Your task to perform on an android device: check data usage Image 0: 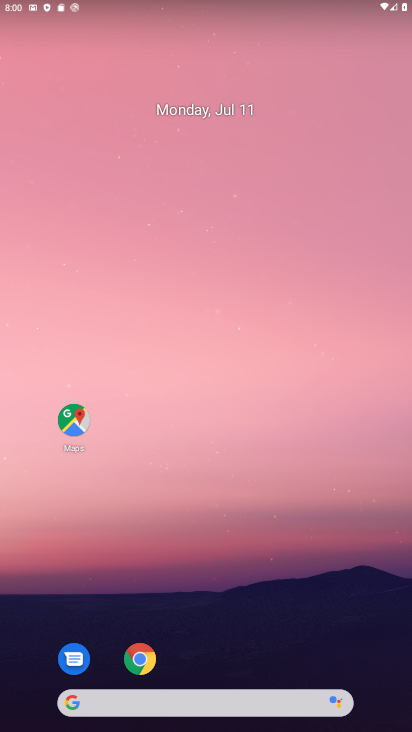
Step 0: drag from (211, 649) to (156, 207)
Your task to perform on an android device: check data usage Image 1: 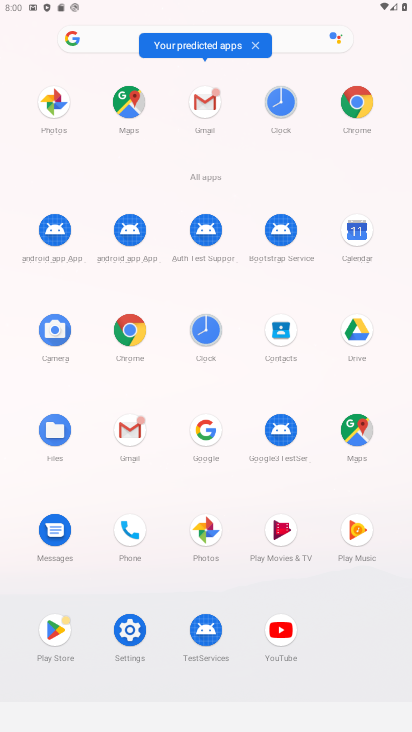
Step 1: click (142, 620)
Your task to perform on an android device: check data usage Image 2: 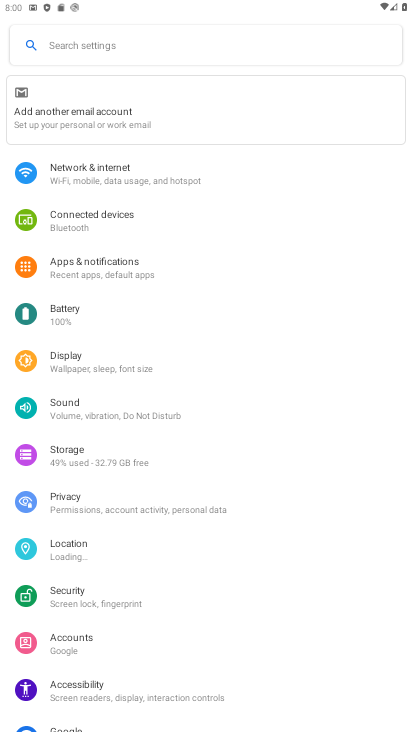
Step 2: click (116, 176)
Your task to perform on an android device: check data usage Image 3: 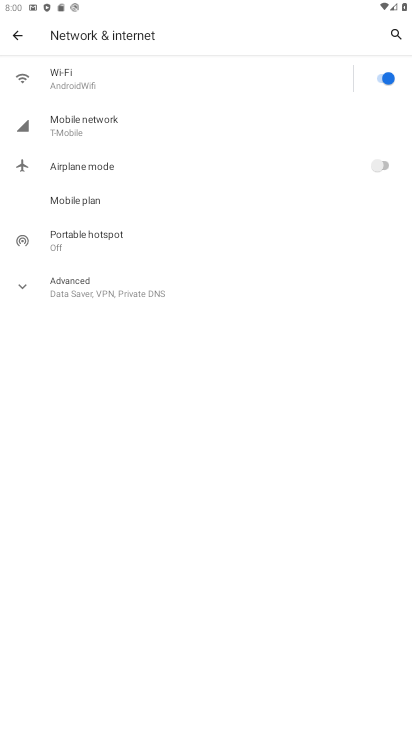
Step 3: click (116, 132)
Your task to perform on an android device: check data usage Image 4: 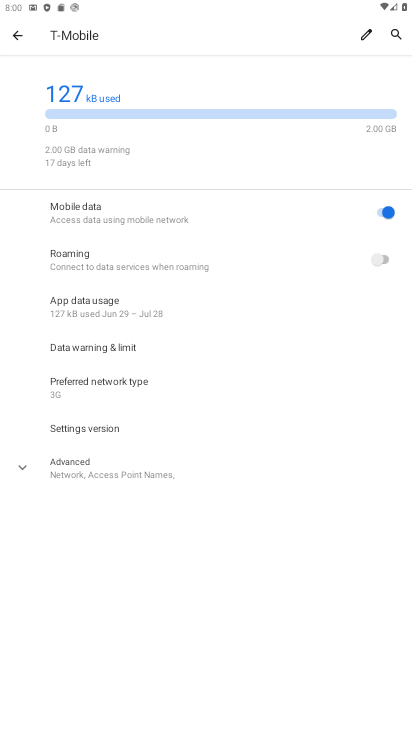
Step 4: click (140, 313)
Your task to perform on an android device: check data usage Image 5: 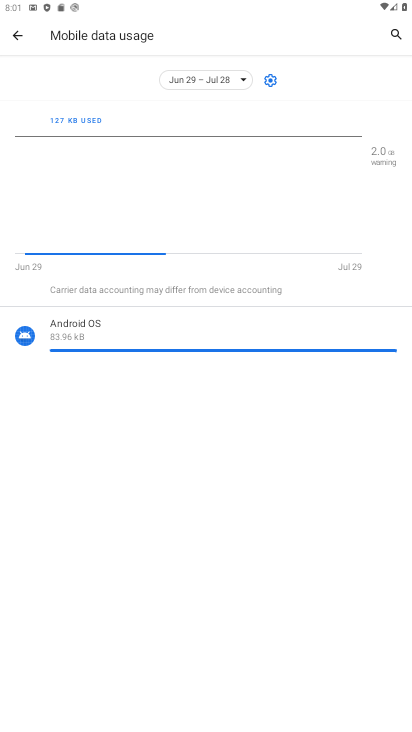
Step 5: task complete